Your task to perform on an android device: Go to Wikipedia Image 0: 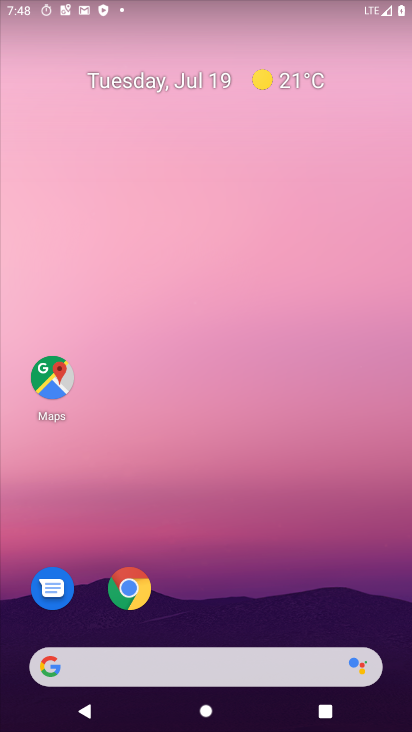
Step 0: drag from (219, 600) to (269, 196)
Your task to perform on an android device: Go to Wikipedia Image 1: 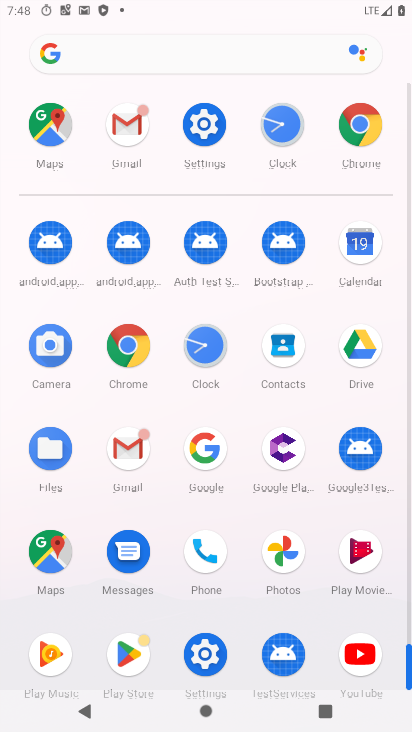
Step 1: click (138, 363)
Your task to perform on an android device: Go to Wikipedia Image 2: 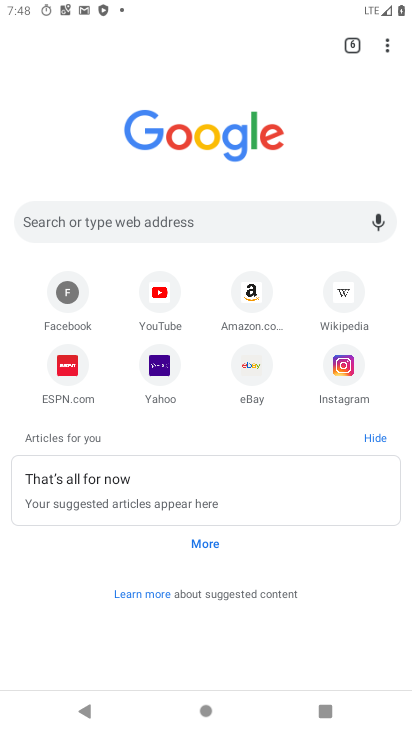
Step 2: click (339, 312)
Your task to perform on an android device: Go to Wikipedia Image 3: 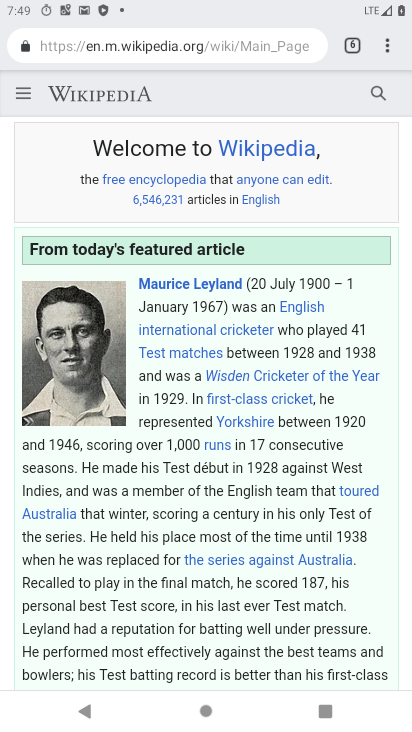
Step 3: task complete